Your task to perform on an android device: Search for vegetarian restaurants on Maps Image 0: 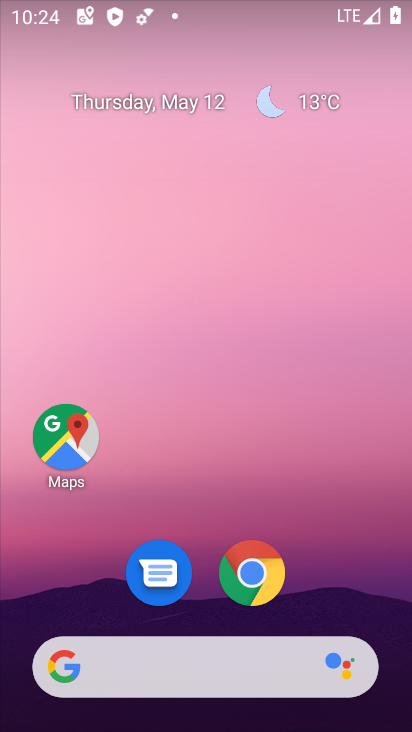
Step 0: drag from (211, 622) to (113, 92)
Your task to perform on an android device: Search for vegetarian restaurants on Maps Image 1: 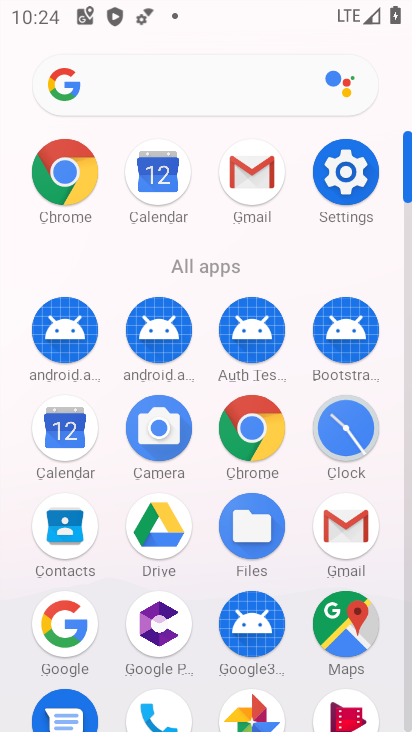
Step 1: click (336, 625)
Your task to perform on an android device: Search for vegetarian restaurants on Maps Image 2: 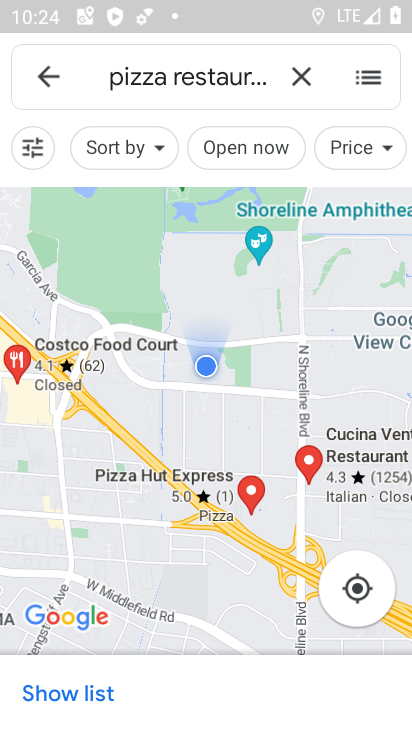
Step 2: click (44, 78)
Your task to perform on an android device: Search for vegetarian restaurants on Maps Image 3: 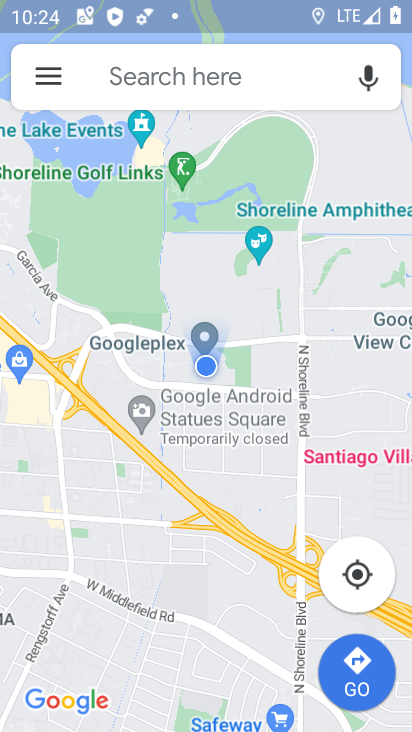
Step 3: click (196, 97)
Your task to perform on an android device: Search for vegetarian restaurants on Maps Image 4: 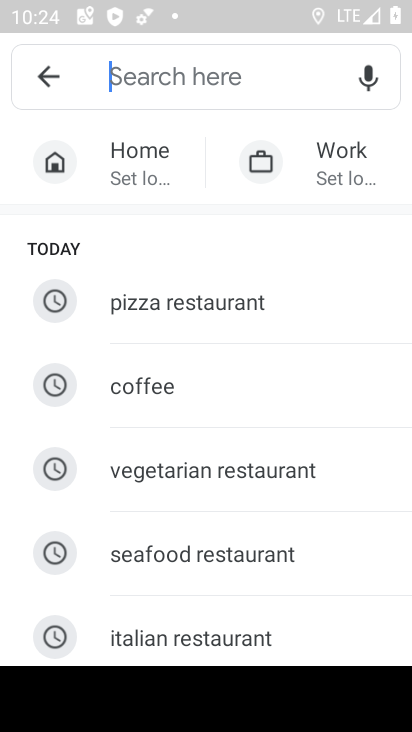
Step 4: click (200, 479)
Your task to perform on an android device: Search for vegetarian restaurants on Maps Image 5: 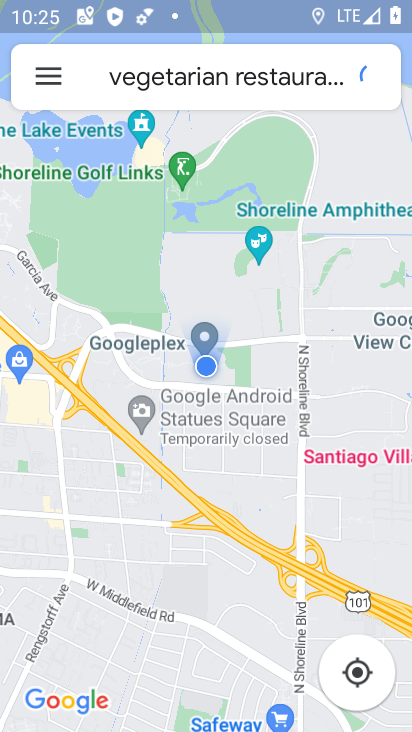
Step 5: task complete